Your task to perform on an android device: Go to wifi settings Image 0: 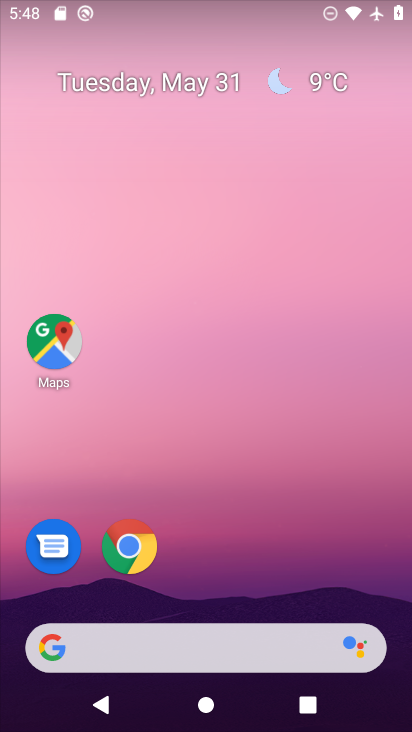
Step 0: drag from (242, 450) to (154, 2)
Your task to perform on an android device: Go to wifi settings Image 1: 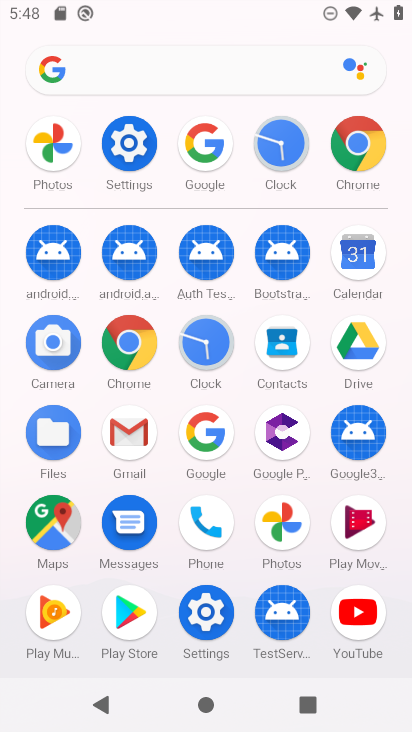
Step 1: click (126, 151)
Your task to perform on an android device: Go to wifi settings Image 2: 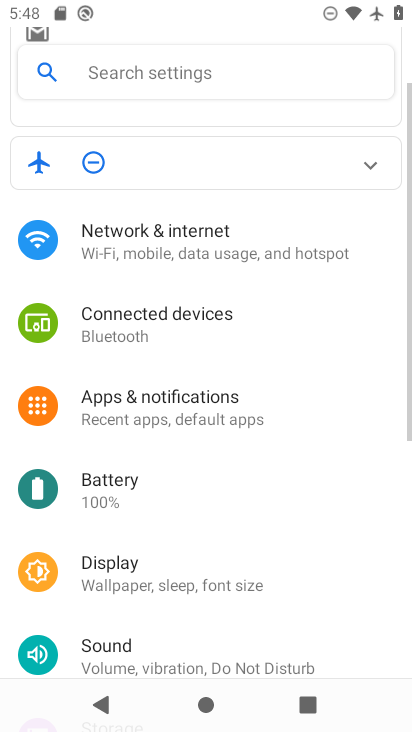
Step 2: click (207, 266)
Your task to perform on an android device: Go to wifi settings Image 3: 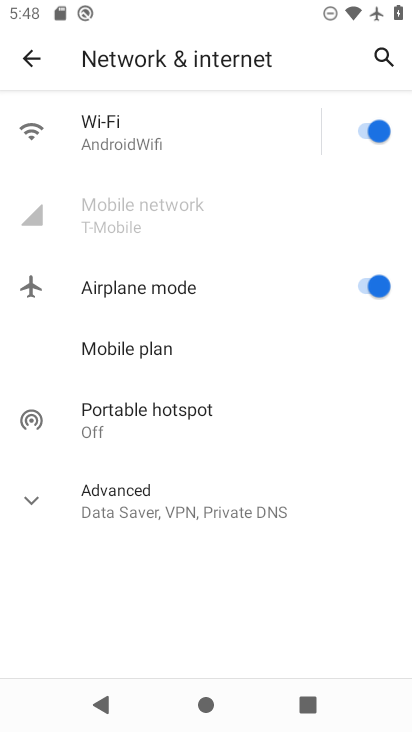
Step 3: click (140, 132)
Your task to perform on an android device: Go to wifi settings Image 4: 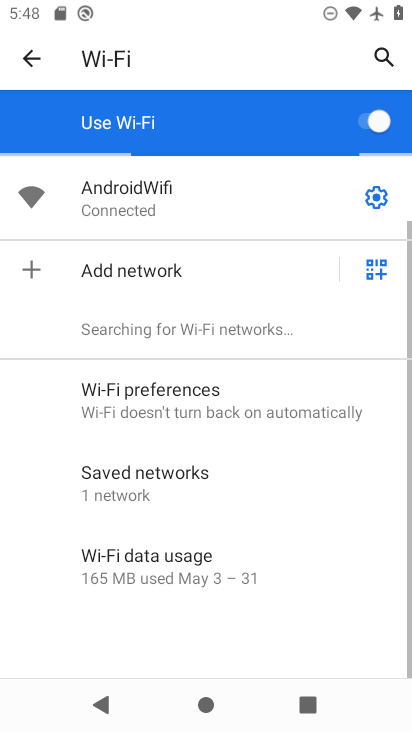
Step 4: task complete